Your task to perform on an android device: Search for pizza restaurants on Maps Image 0: 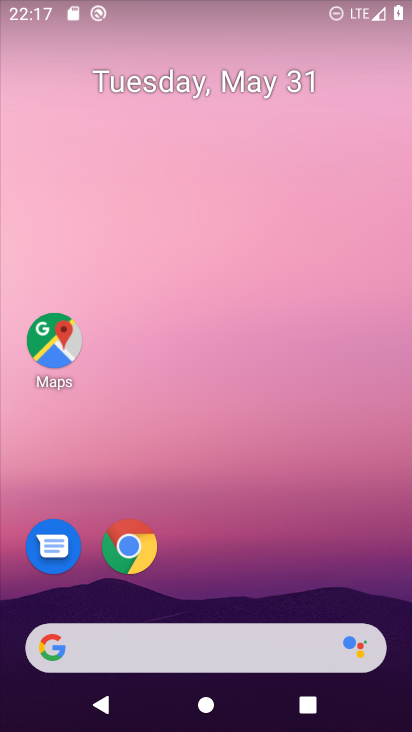
Step 0: click (49, 340)
Your task to perform on an android device: Search for pizza restaurants on Maps Image 1: 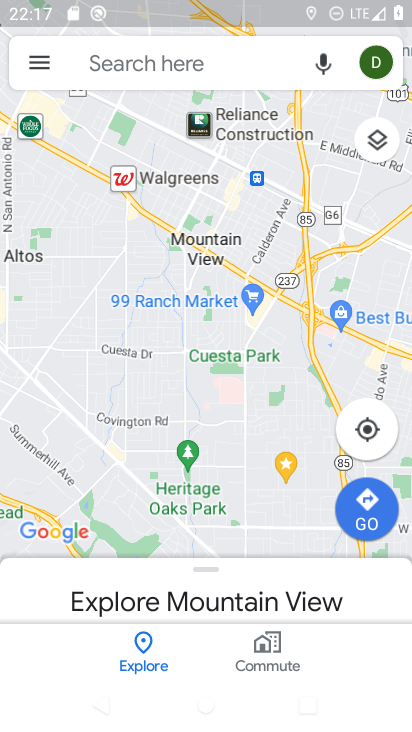
Step 1: click (209, 66)
Your task to perform on an android device: Search for pizza restaurants on Maps Image 2: 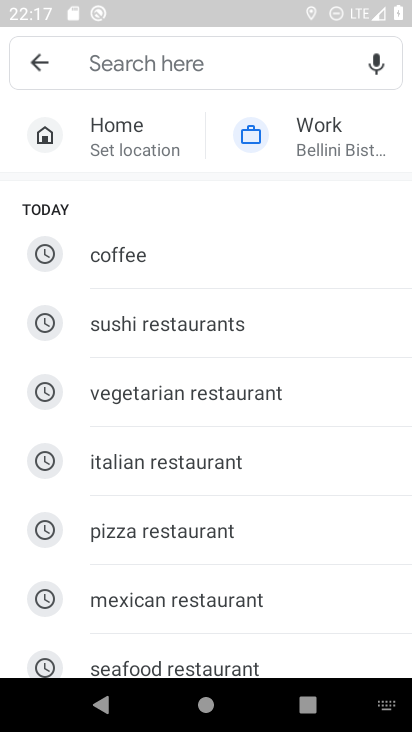
Step 2: type "pizza restaurants"
Your task to perform on an android device: Search for pizza restaurants on Maps Image 3: 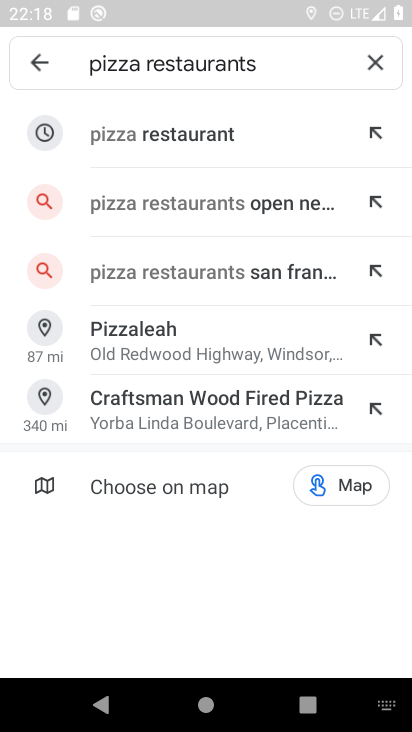
Step 3: click (152, 201)
Your task to perform on an android device: Search for pizza restaurants on Maps Image 4: 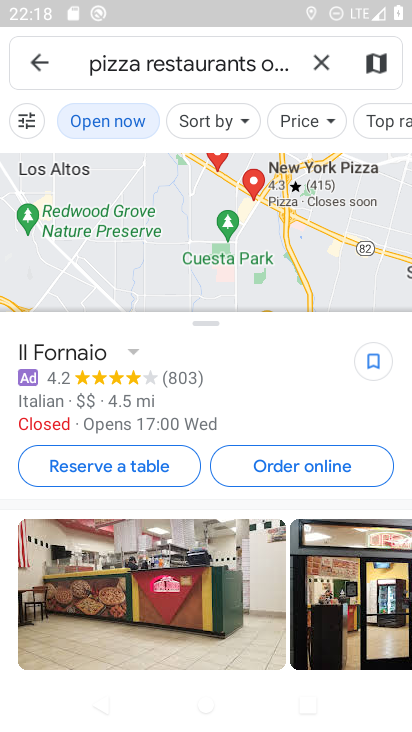
Step 4: task complete